Your task to perform on an android device: Go to settings Image 0: 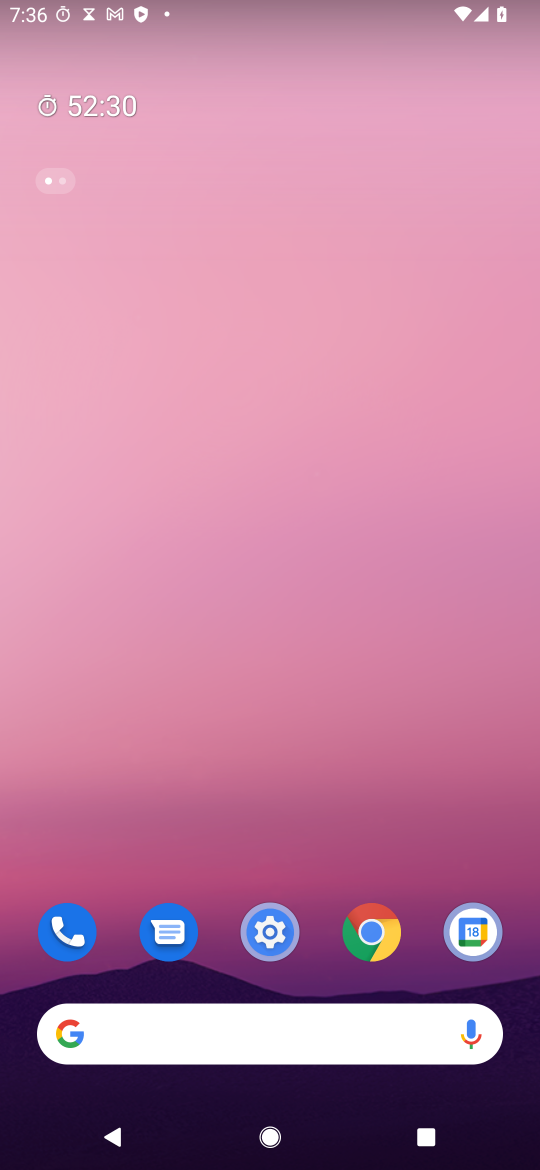
Step 0: click (261, 940)
Your task to perform on an android device: Go to settings Image 1: 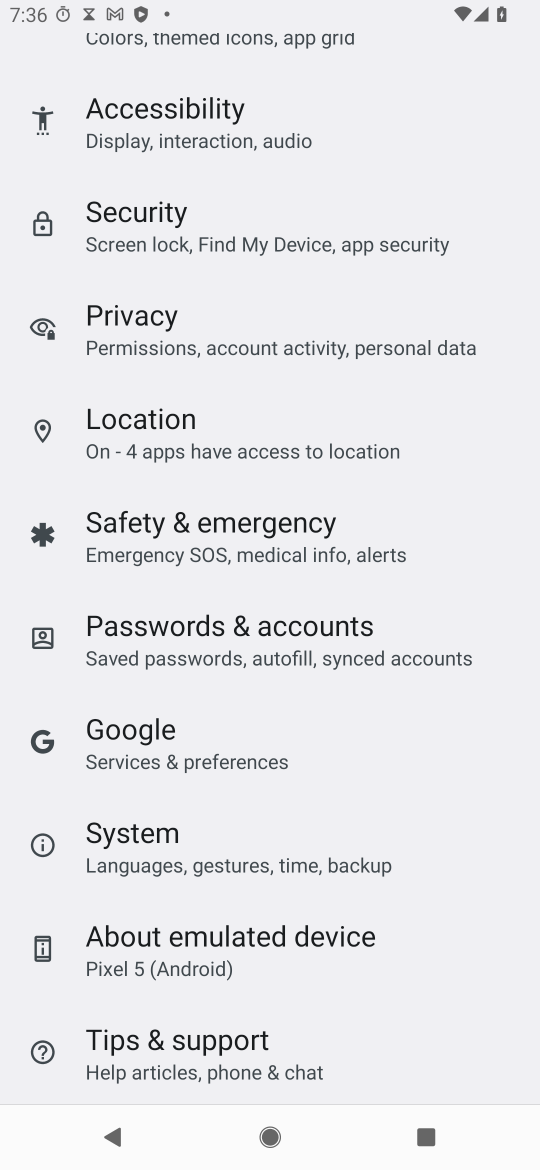
Step 1: task complete